Your task to perform on an android device: Open Google Maps Image 0: 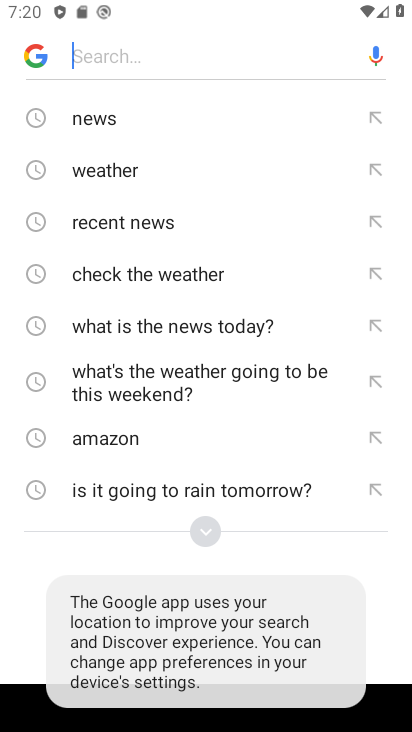
Step 0: press back button
Your task to perform on an android device: Open Google Maps Image 1: 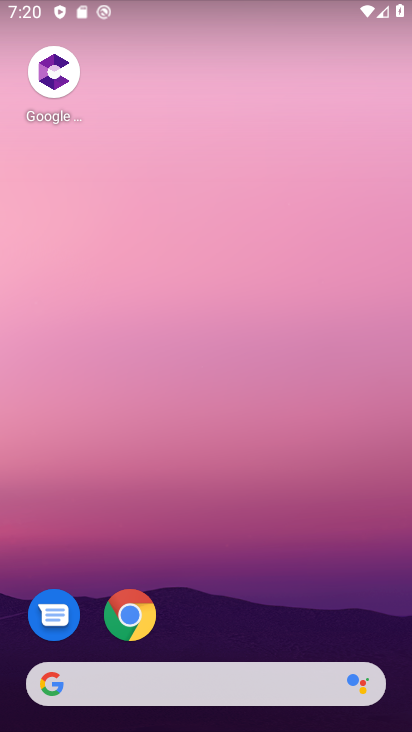
Step 1: drag from (255, 594) to (237, 148)
Your task to perform on an android device: Open Google Maps Image 2: 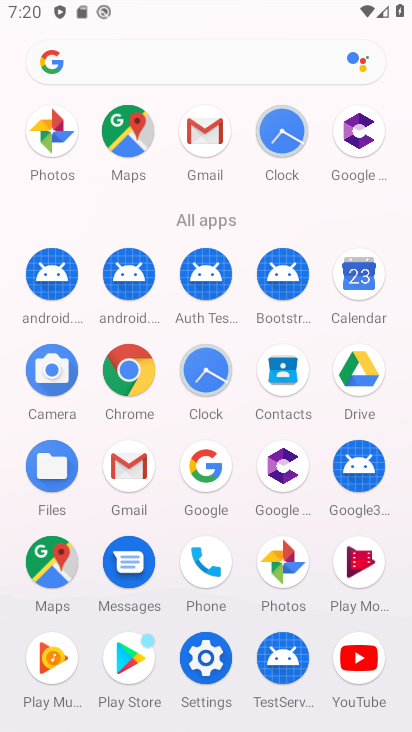
Step 2: click (127, 135)
Your task to perform on an android device: Open Google Maps Image 3: 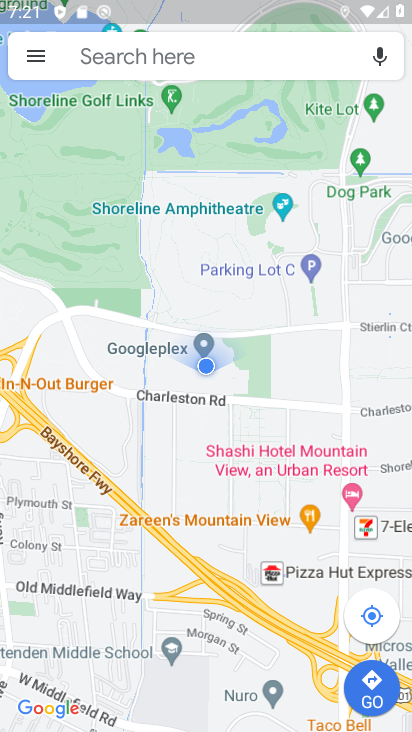
Step 3: task complete